Your task to perform on an android device: check battery use Image 0: 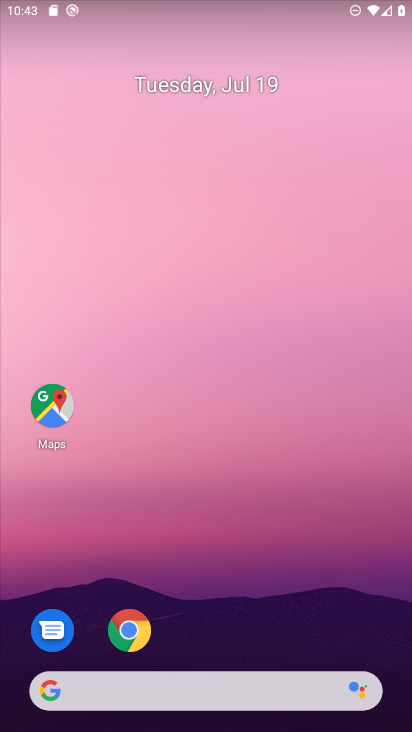
Step 0: drag from (191, 681) to (268, 299)
Your task to perform on an android device: check battery use Image 1: 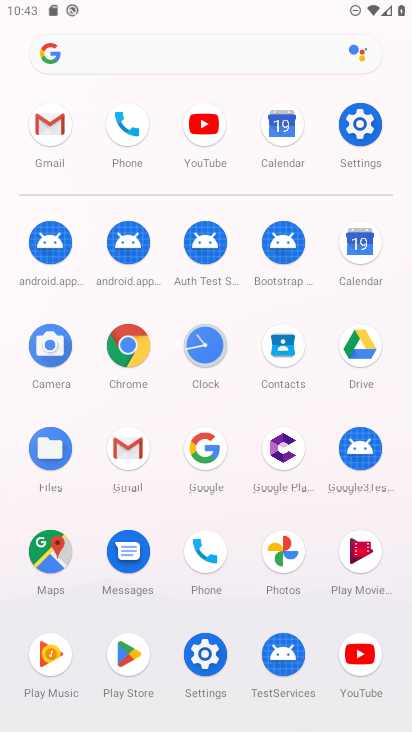
Step 1: click (360, 124)
Your task to perform on an android device: check battery use Image 2: 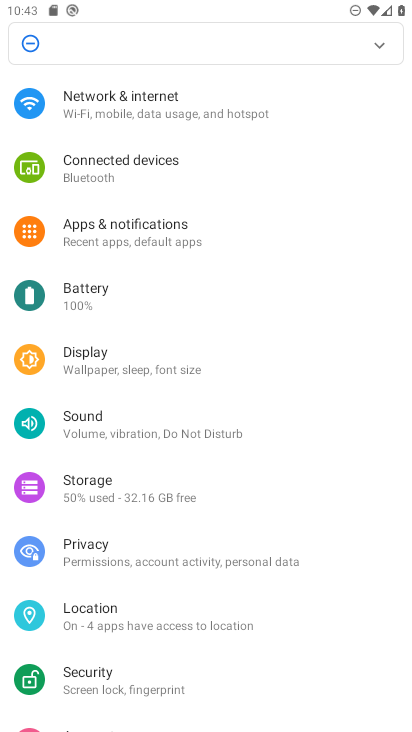
Step 2: click (77, 297)
Your task to perform on an android device: check battery use Image 3: 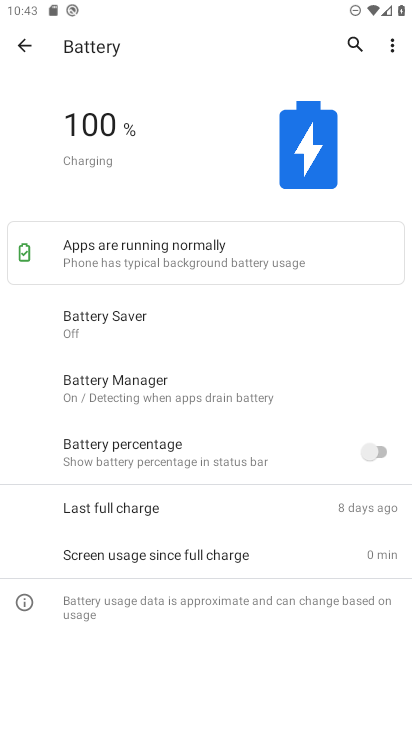
Step 3: click (392, 42)
Your task to perform on an android device: check battery use Image 4: 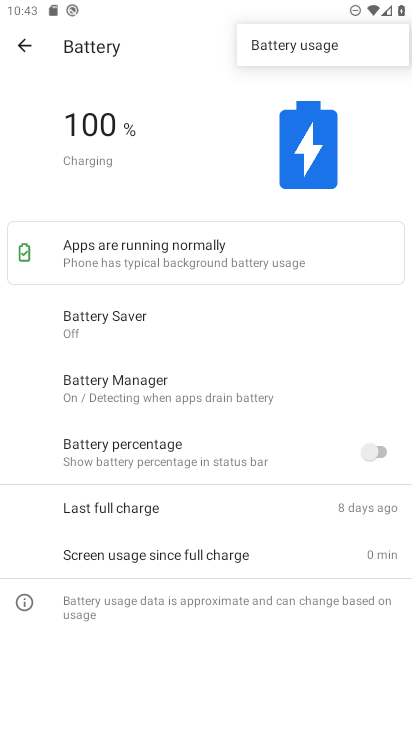
Step 4: click (299, 40)
Your task to perform on an android device: check battery use Image 5: 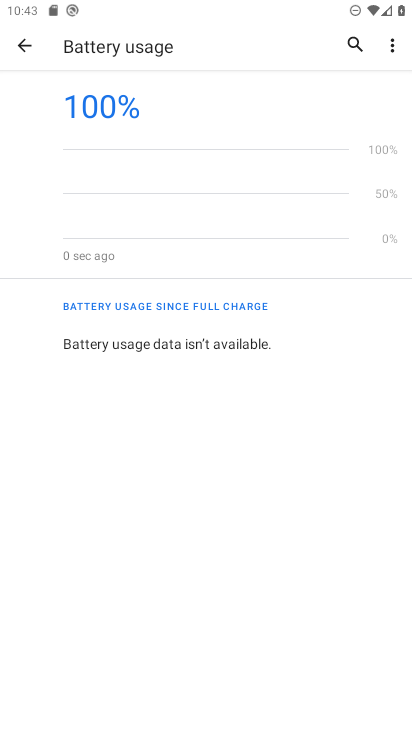
Step 5: task complete